Your task to perform on an android device: open app "Contacts" Image 0: 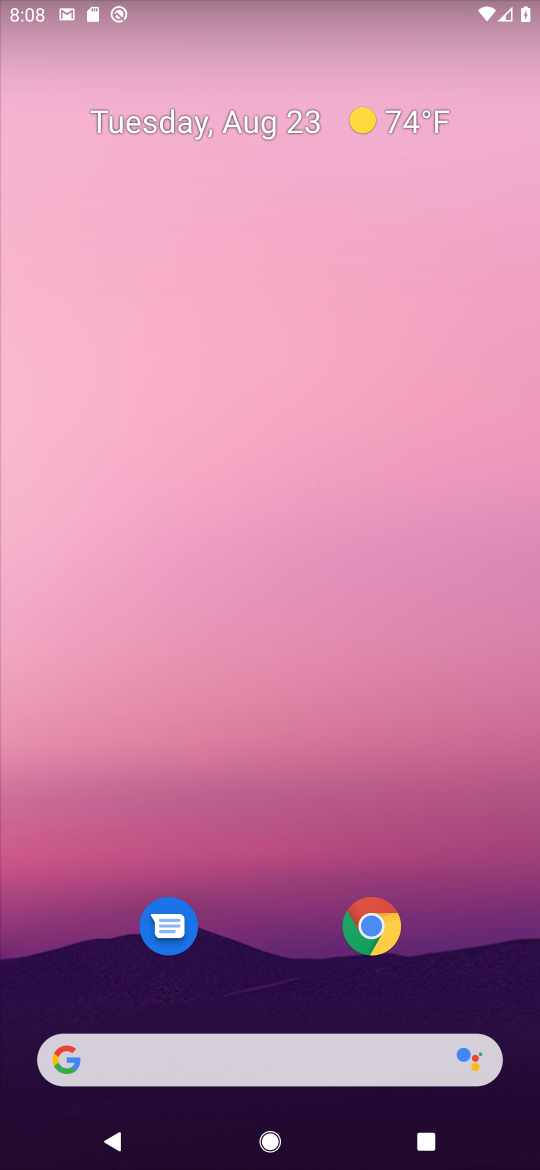
Step 0: drag from (280, 696) to (355, 150)
Your task to perform on an android device: open app "Contacts" Image 1: 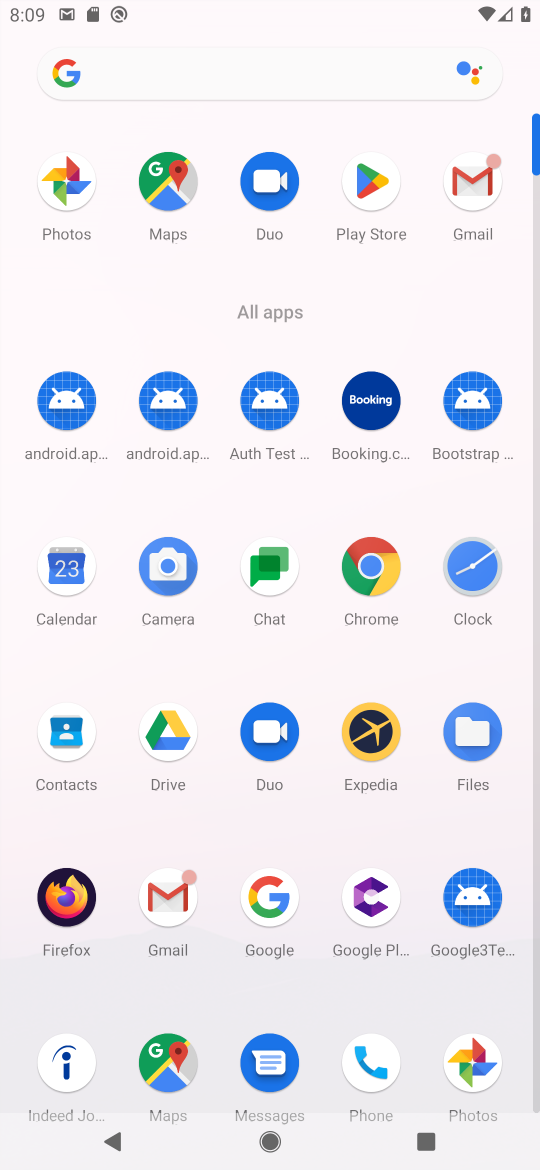
Step 1: click (369, 200)
Your task to perform on an android device: open app "Contacts" Image 2: 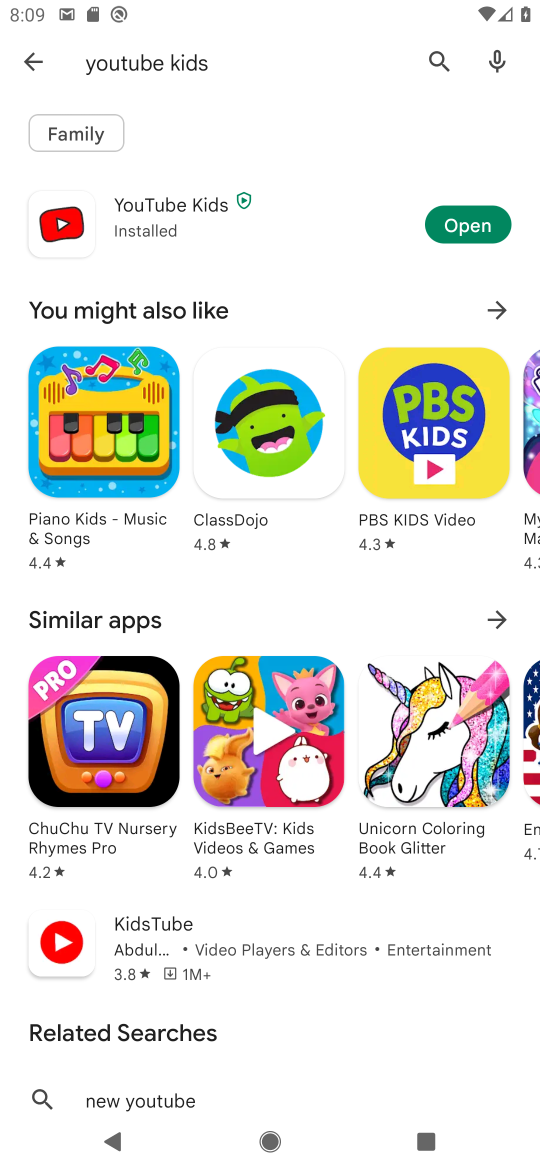
Step 2: click (208, 68)
Your task to perform on an android device: open app "Contacts" Image 3: 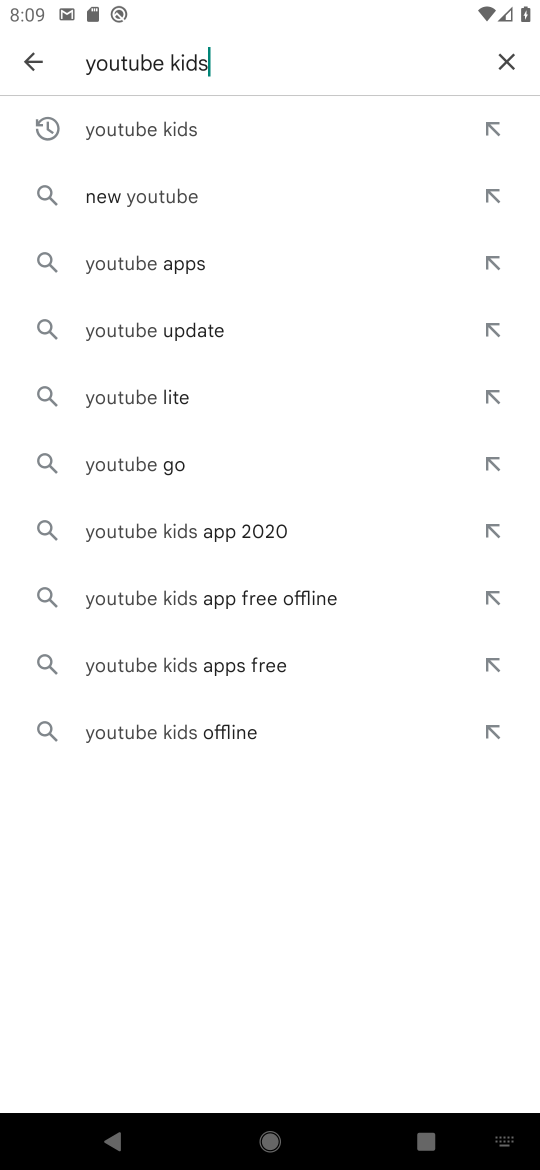
Step 3: click (502, 60)
Your task to perform on an android device: open app "Contacts" Image 4: 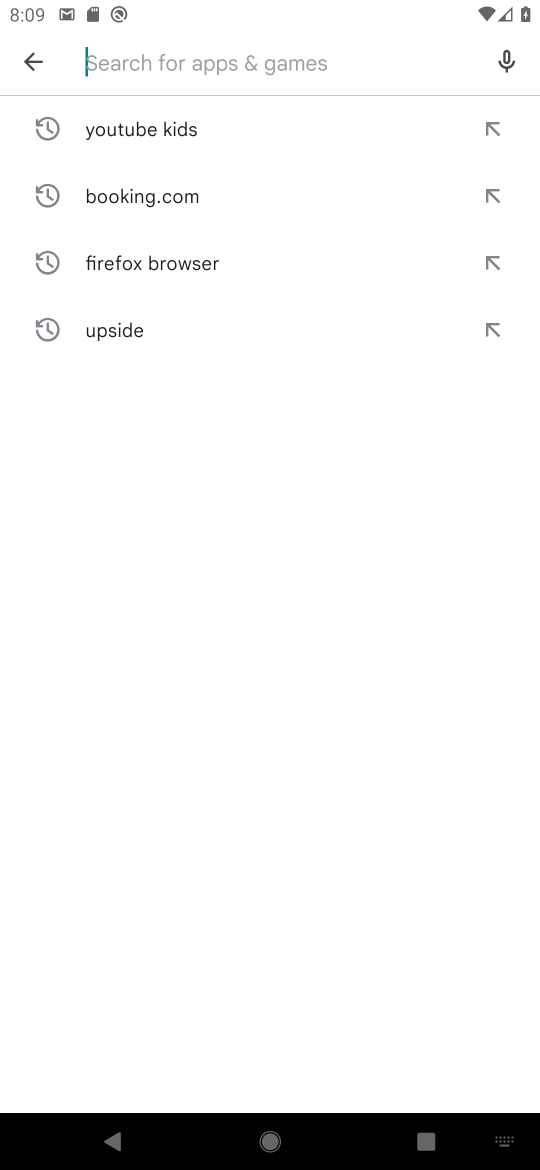
Step 4: type "contacts"
Your task to perform on an android device: open app "Contacts" Image 5: 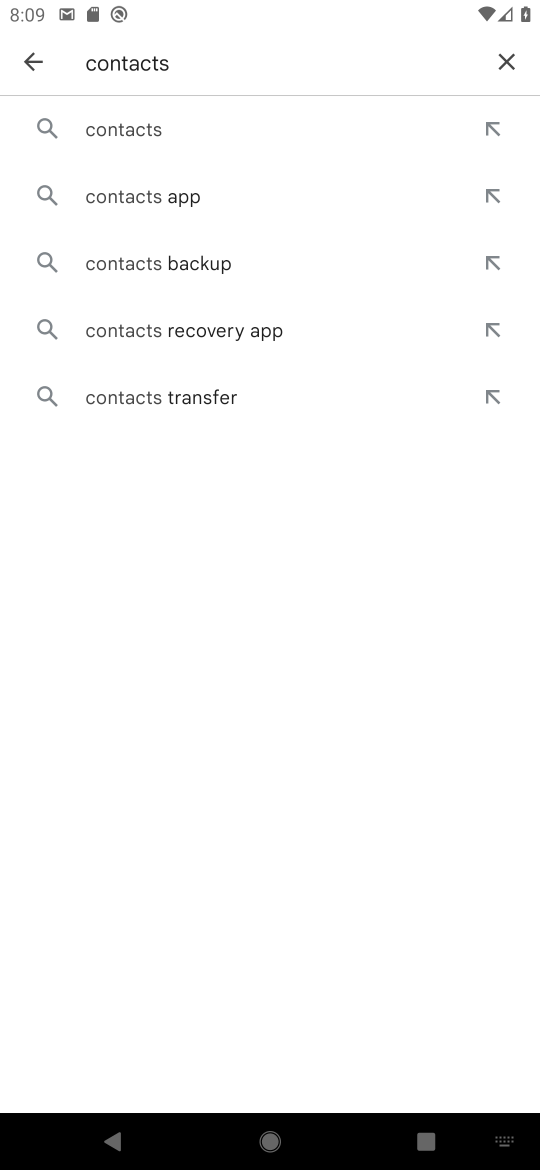
Step 5: click (177, 130)
Your task to perform on an android device: open app "Contacts" Image 6: 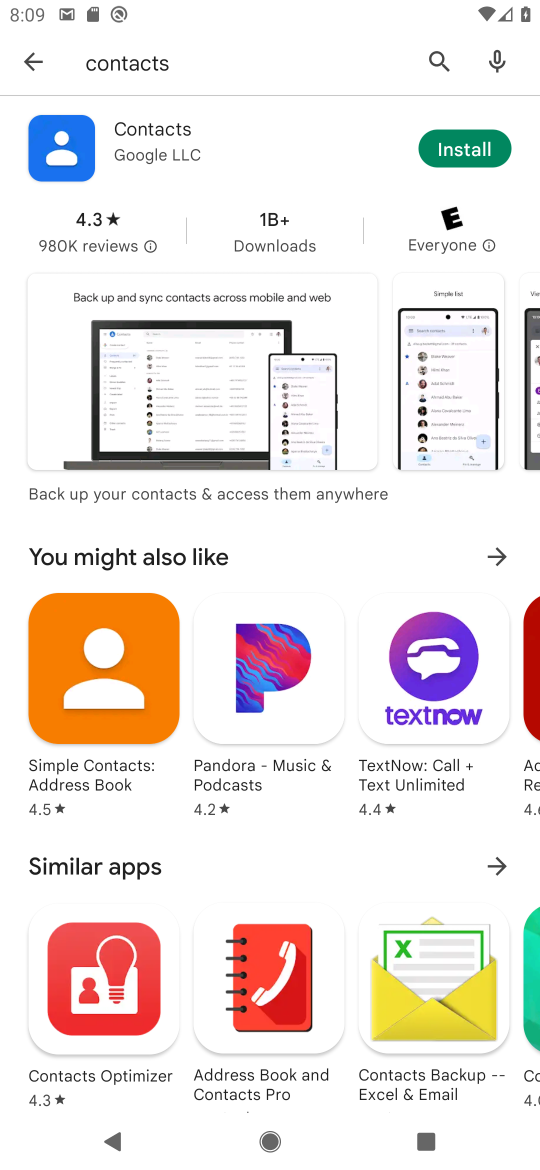
Step 6: task complete